Your task to perform on an android device: change timer sound Image 0: 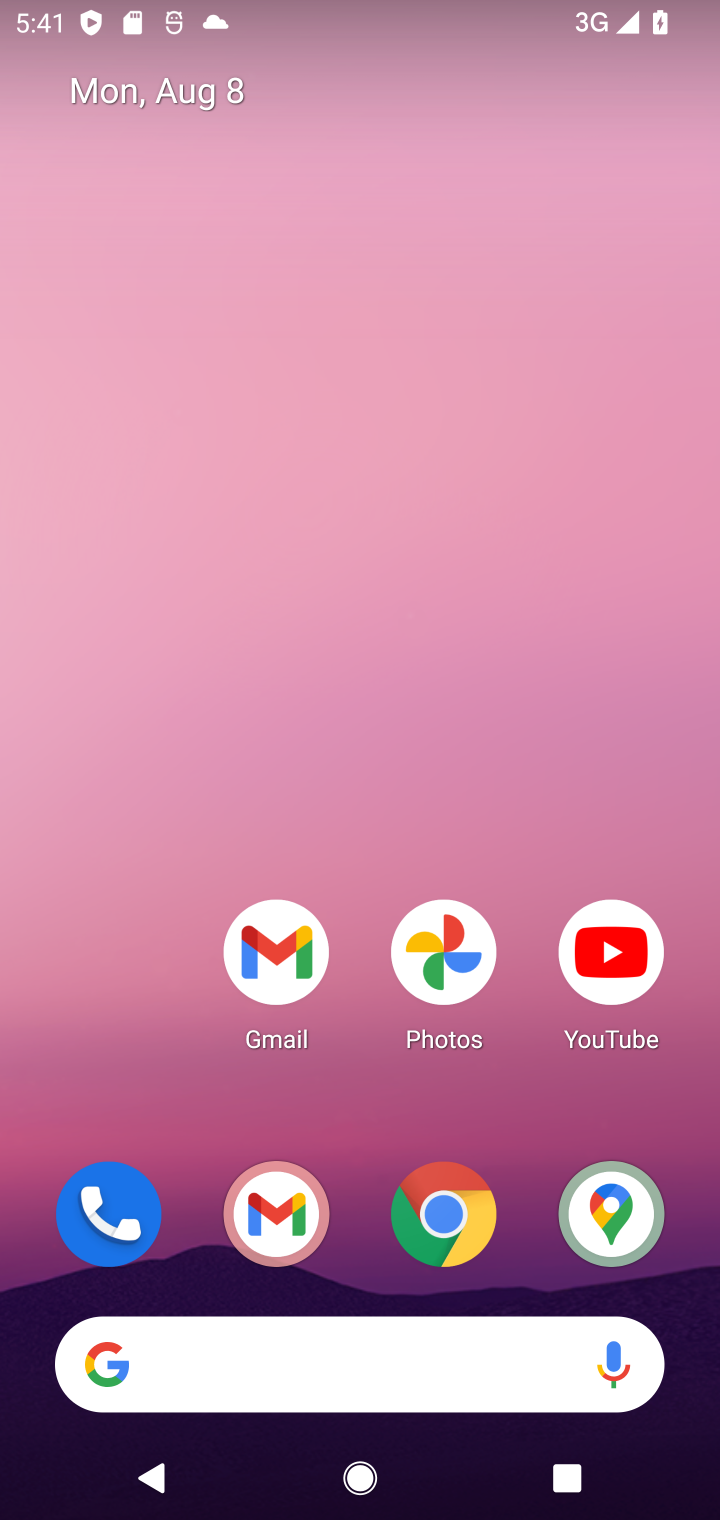
Step 0: click (656, 1082)
Your task to perform on an android device: change timer sound Image 1: 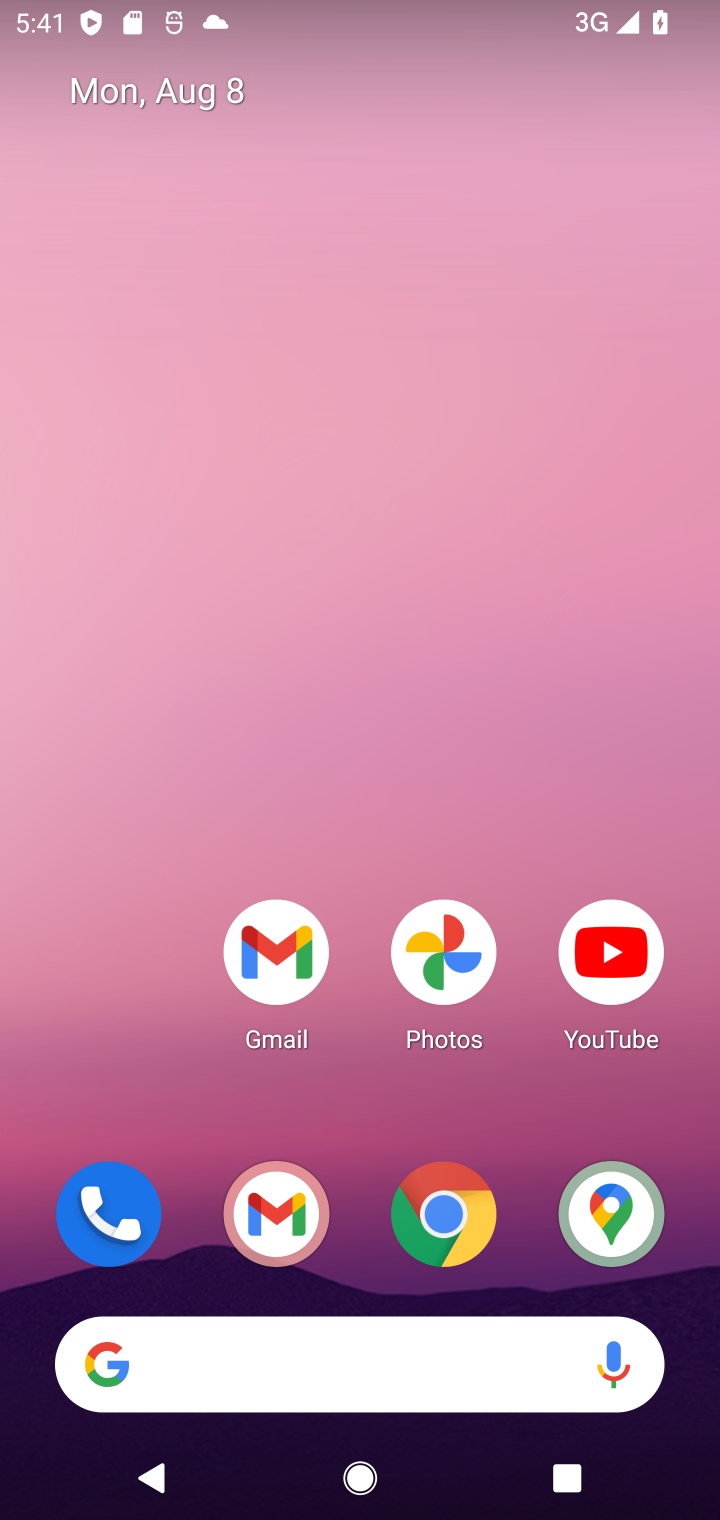
Step 1: drag from (364, 986) to (338, 103)
Your task to perform on an android device: change timer sound Image 2: 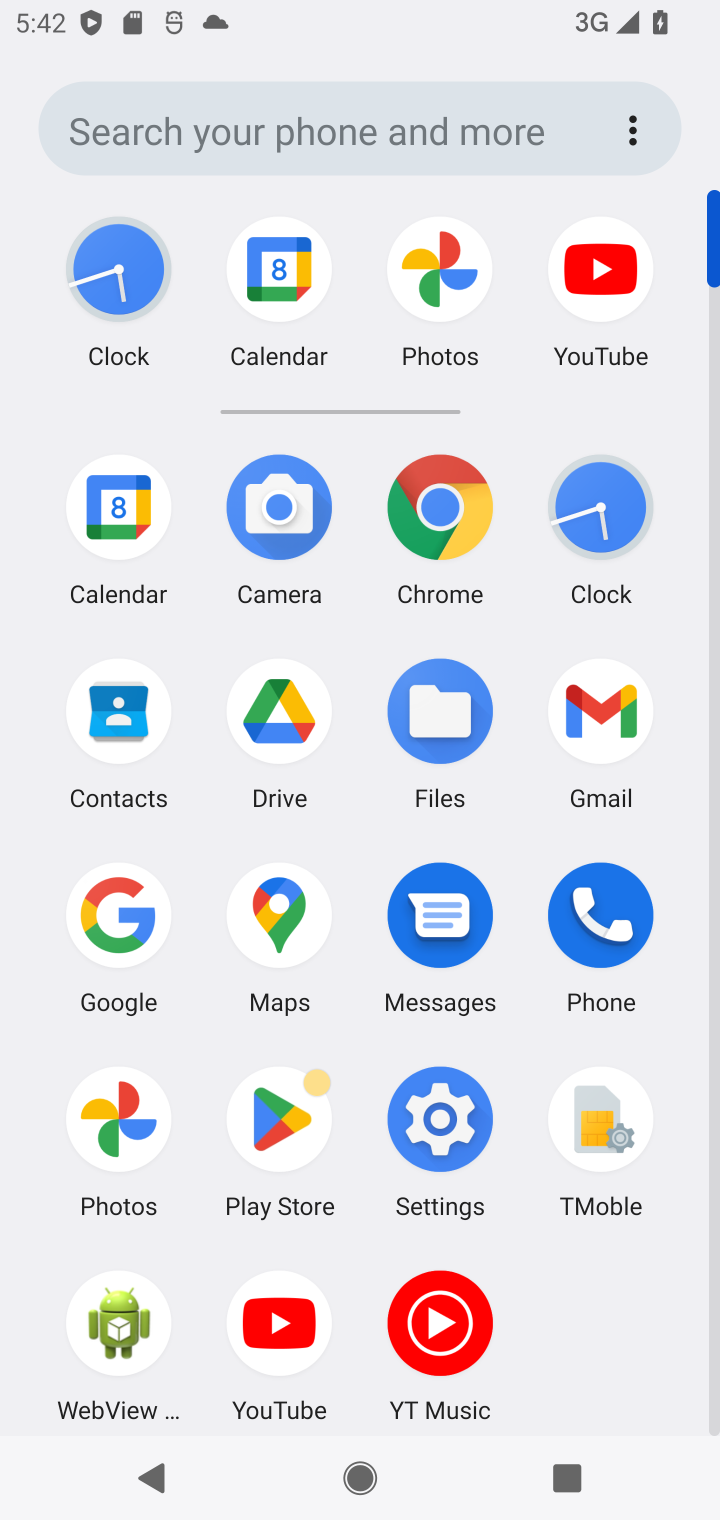
Step 2: click (595, 502)
Your task to perform on an android device: change timer sound Image 3: 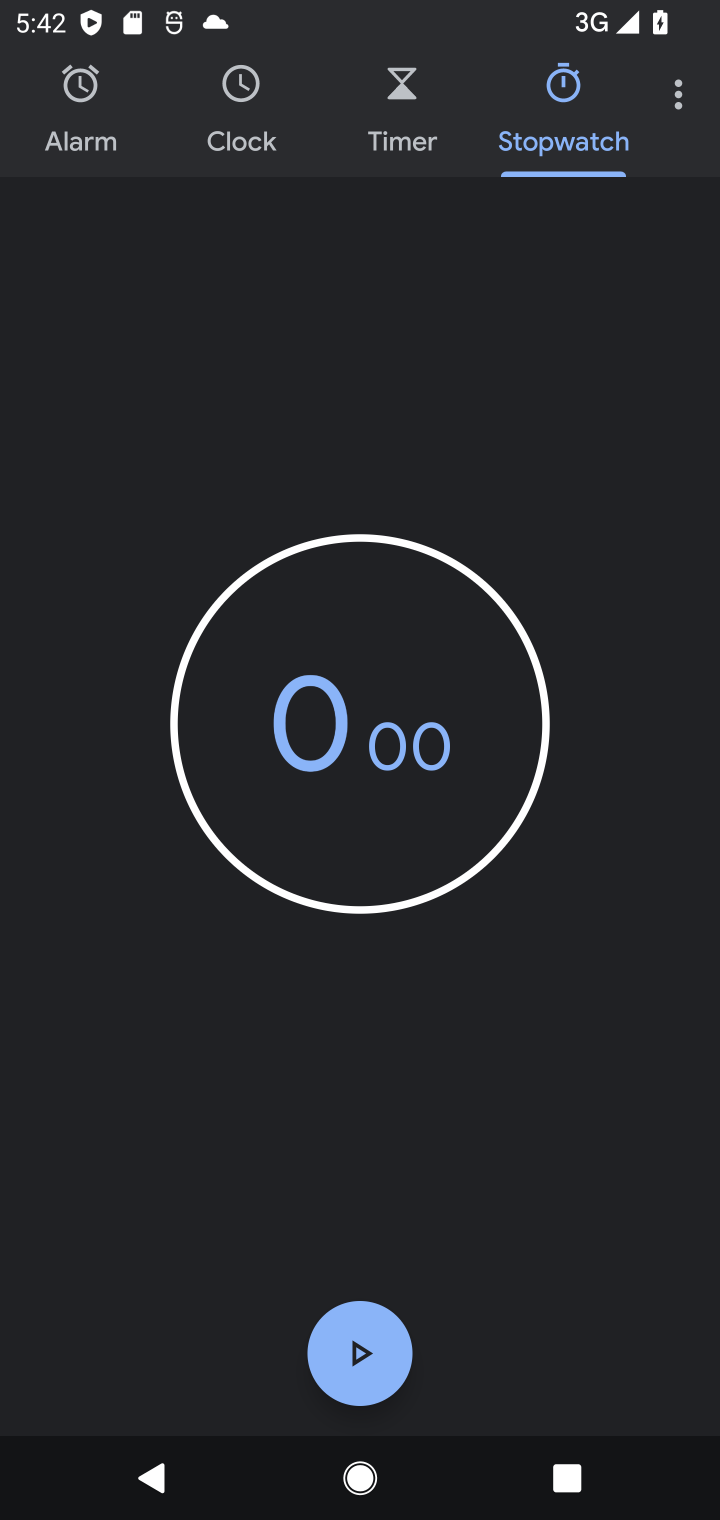
Step 3: click (679, 103)
Your task to perform on an android device: change timer sound Image 4: 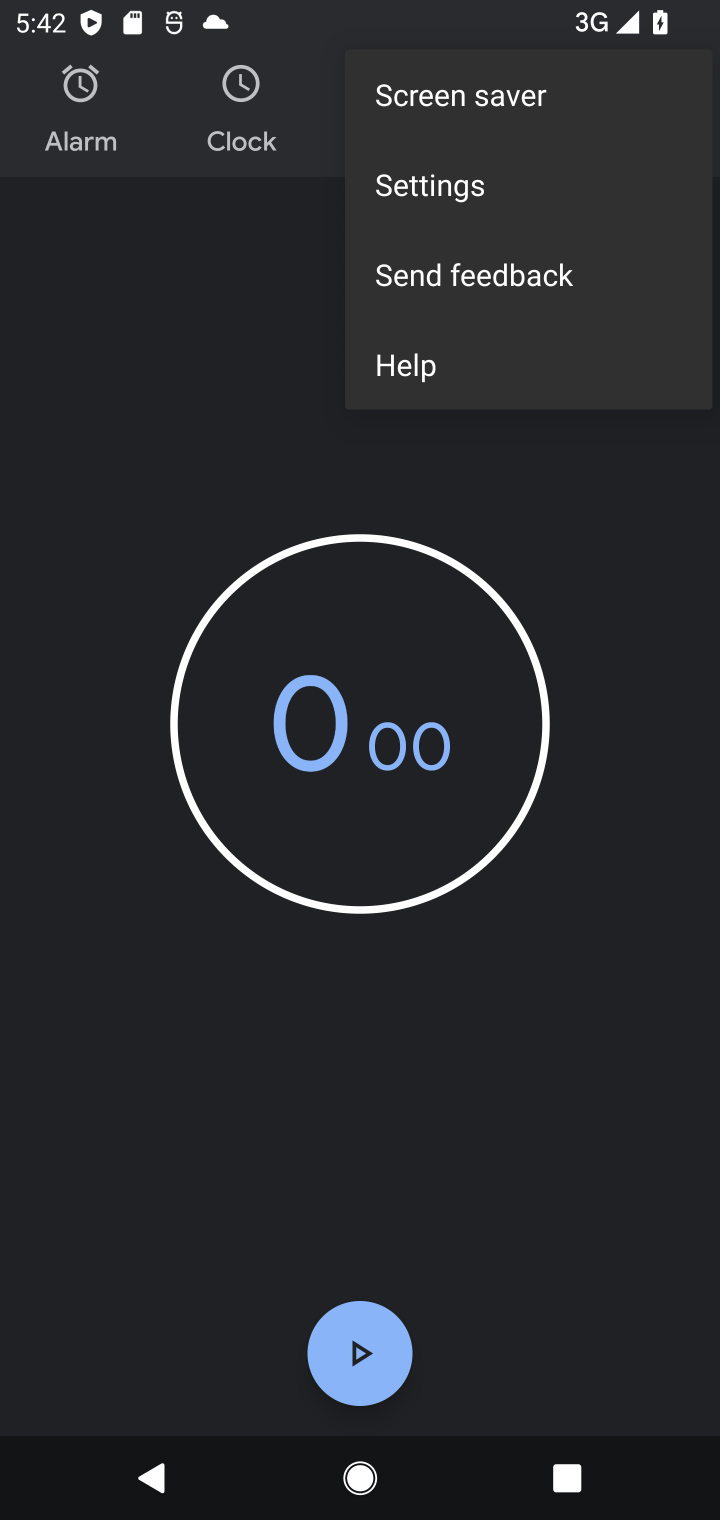
Step 4: click (441, 191)
Your task to perform on an android device: change timer sound Image 5: 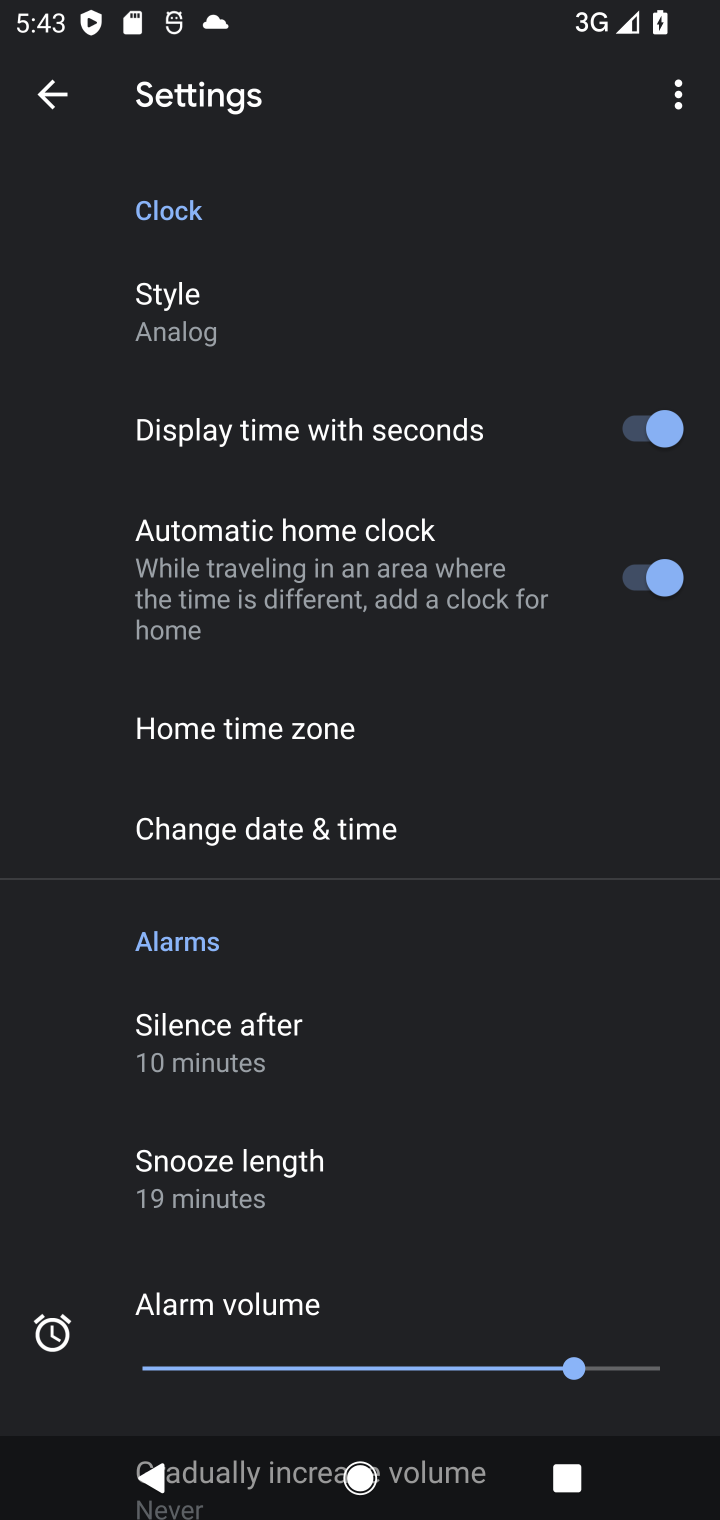
Step 5: drag from (399, 1185) to (354, 456)
Your task to perform on an android device: change timer sound Image 6: 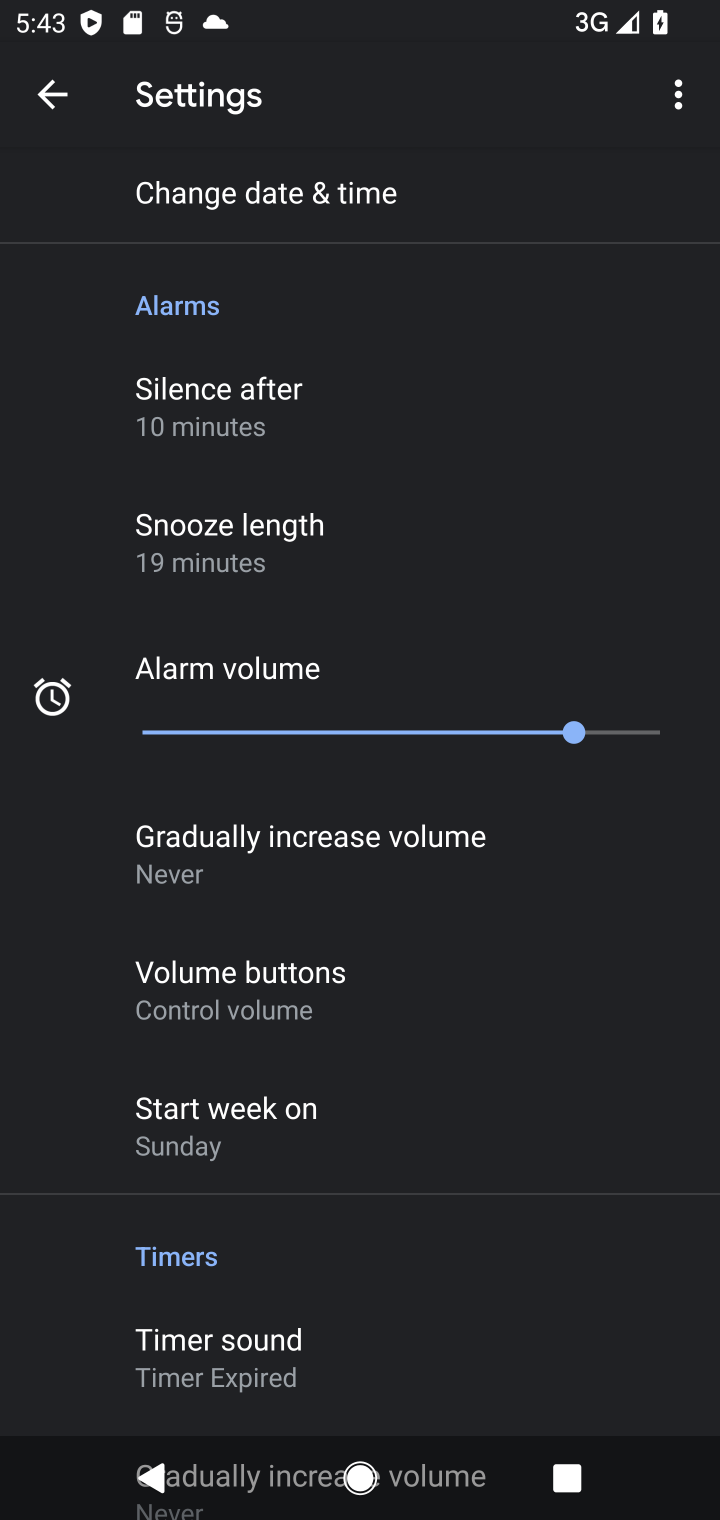
Step 6: click (291, 1336)
Your task to perform on an android device: change timer sound Image 7: 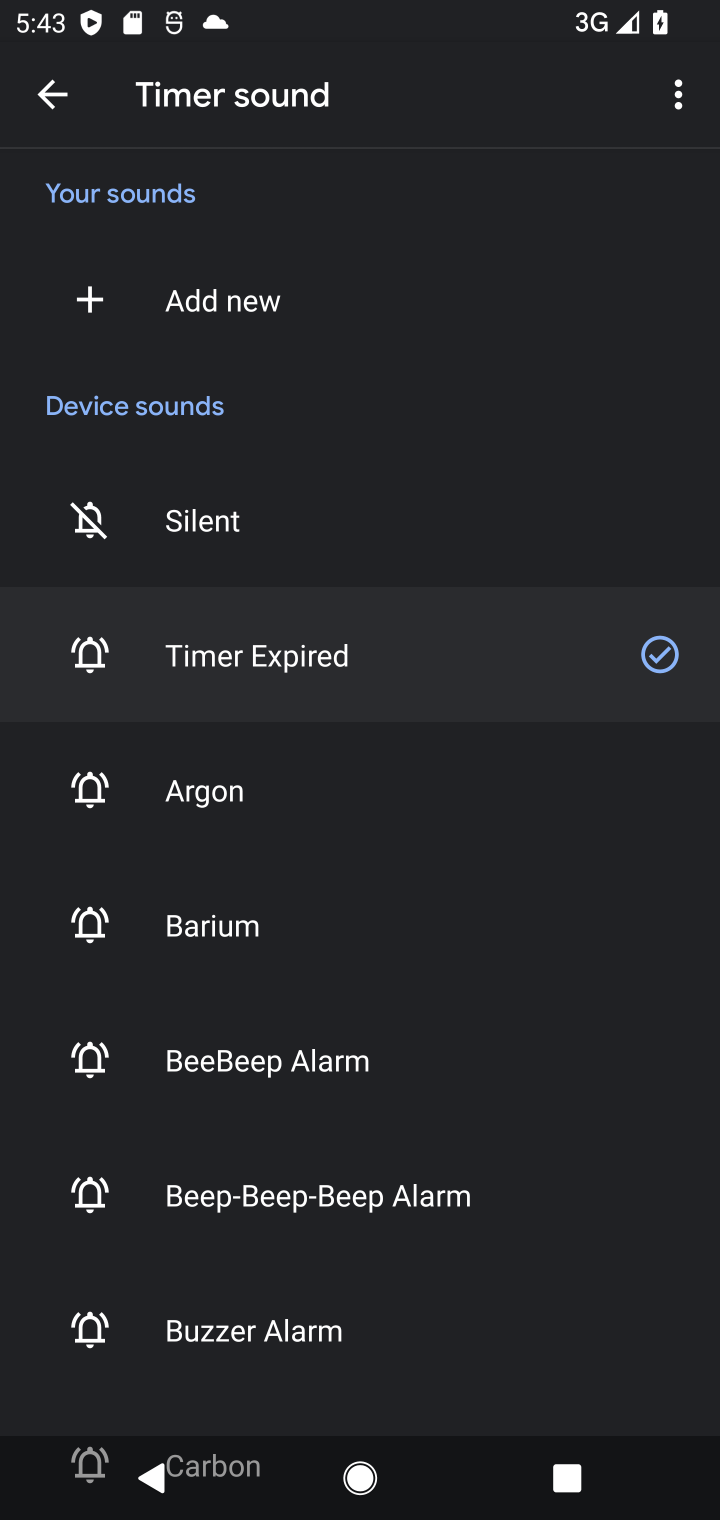
Step 7: click (234, 1318)
Your task to perform on an android device: change timer sound Image 8: 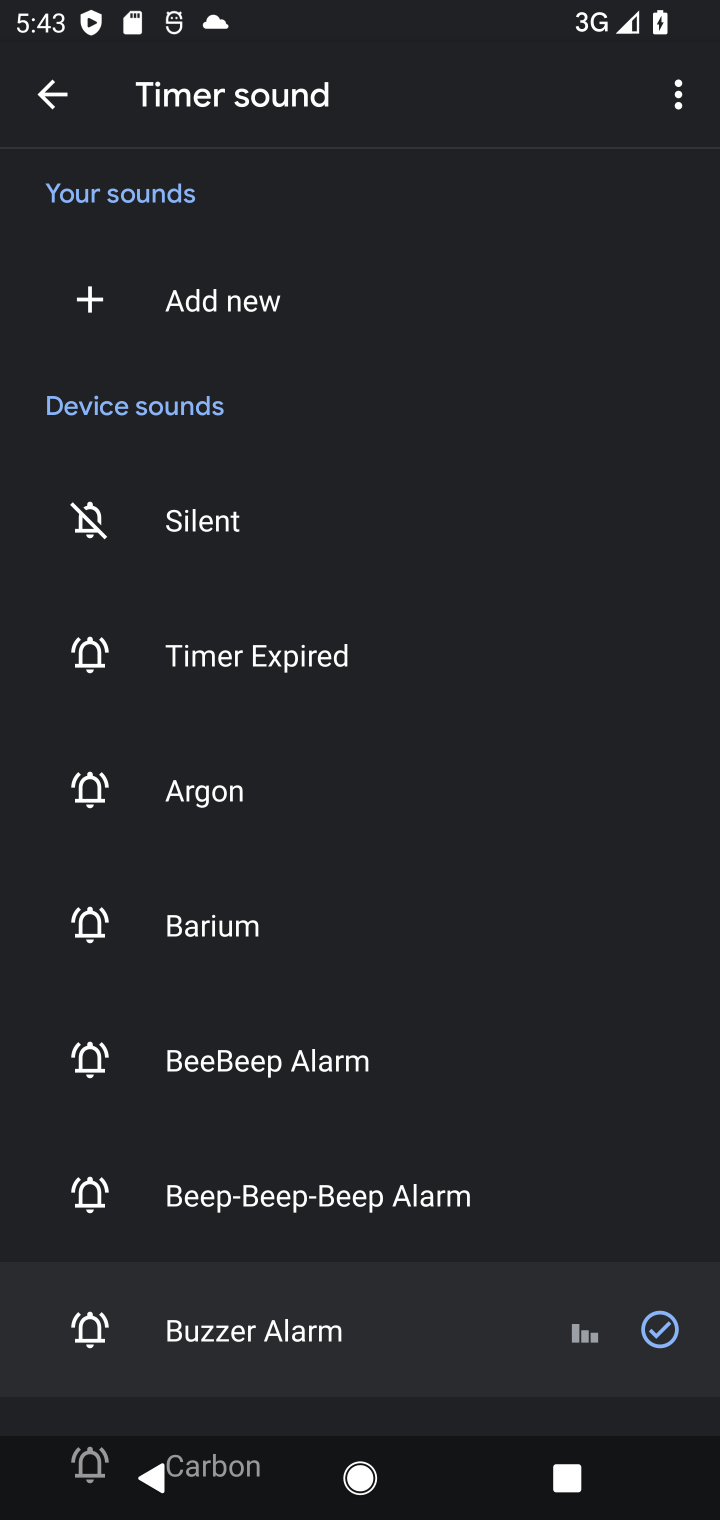
Step 8: task complete